Your task to perform on an android device: Open Reddit.com Image 0: 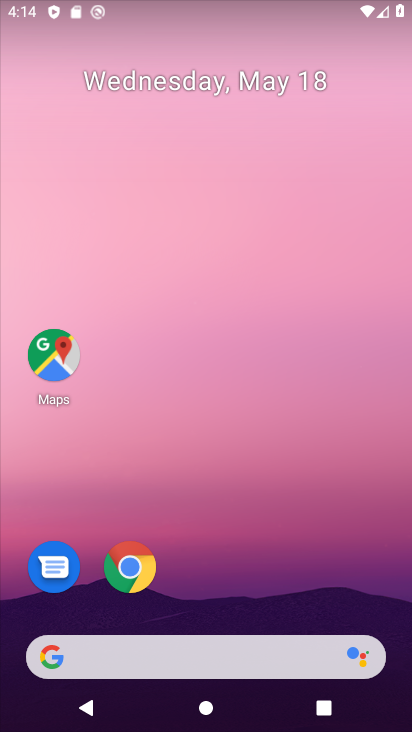
Step 0: click (137, 566)
Your task to perform on an android device: Open Reddit.com Image 1: 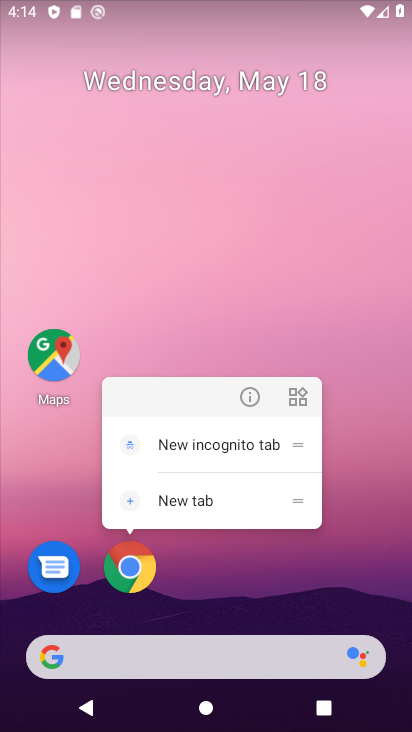
Step 1: drag from (137, 640) to (169, 216)
Your task to perform on an android device: Open Reddit.com Image 2: 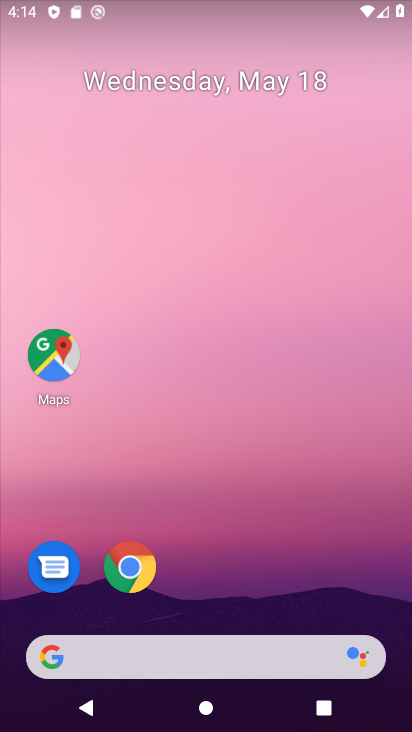
Step 2: drag from (238, 635) to (201, 202)
Your task to perform on an android device: Open Reddit.com Image 3: 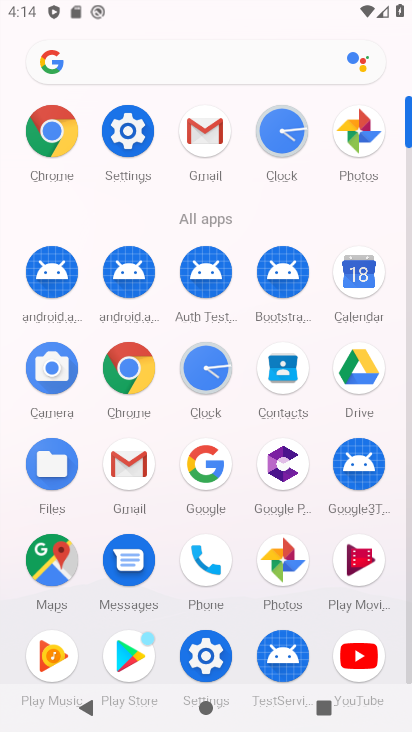
Step 3: click (194, 462)
Your task to perform on an android device: Open Reddit.com Image 4: 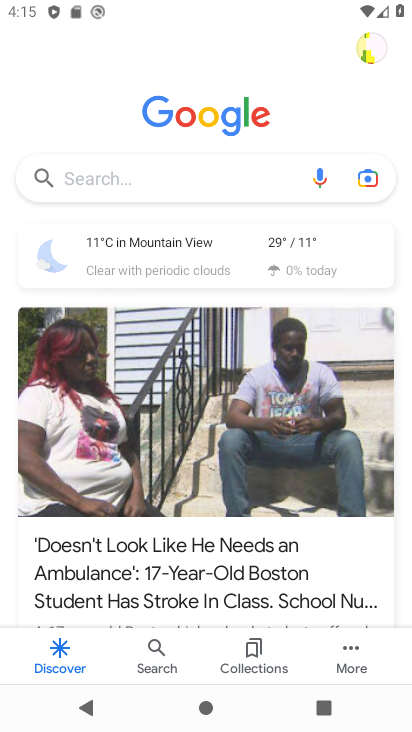
Step 4: click (144, 178)
Your task to perform on an android device: Open Reddit.com Image 5: 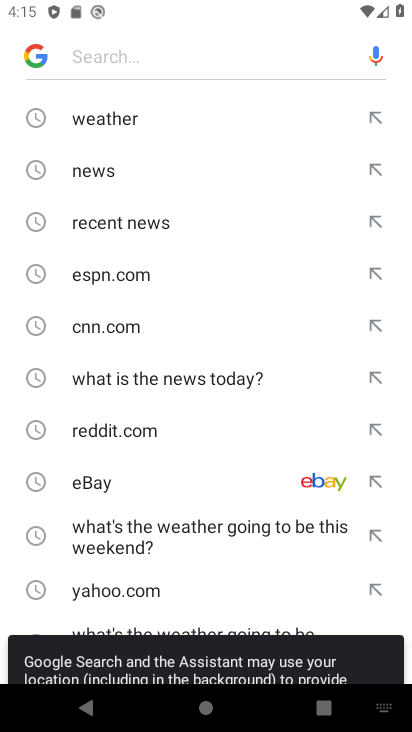
Step 5: click (108, 430)
Your task to perform on an android device: Open Reddit.com Image 6: 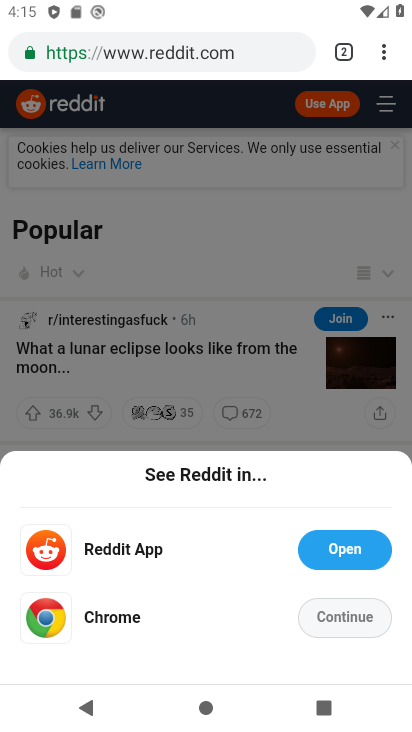
Step 6: task complete